Your task to perform on an android device: turn off notifications in google photos Image 0: 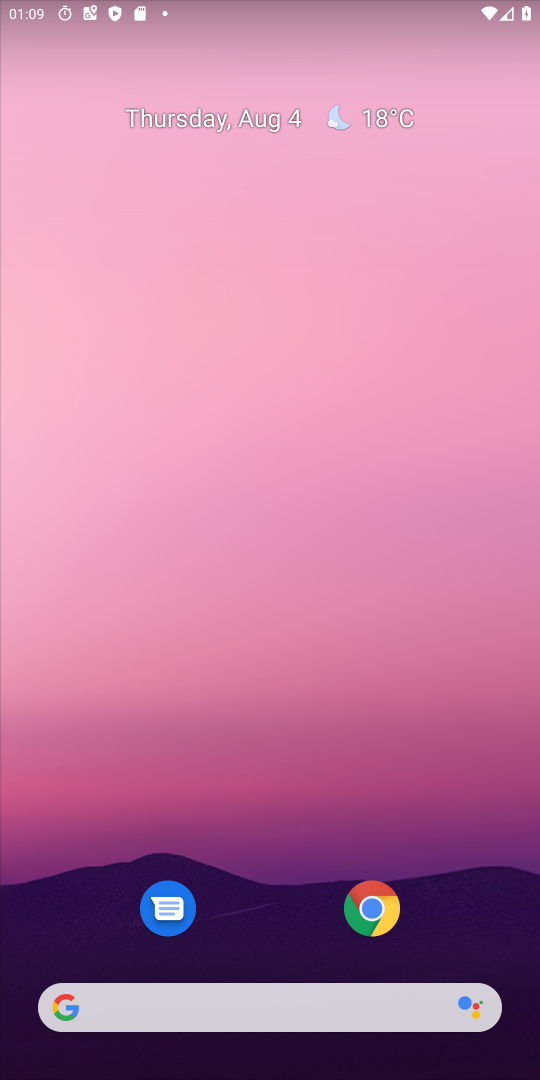
Step 0: press home button
Your task to perform on an android device: turn off notifications in google photos Image 1: 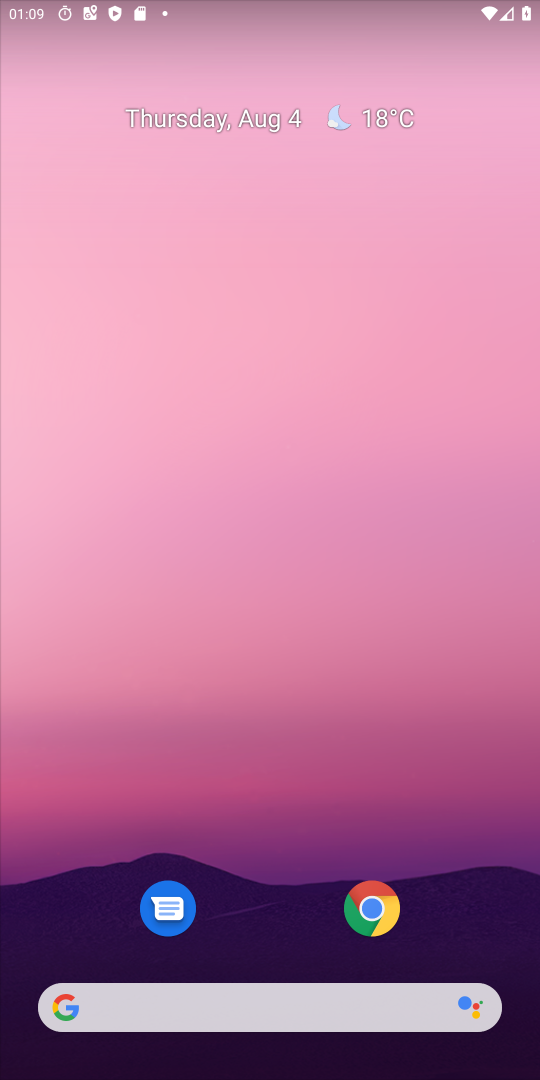
Step 1: drag from (282, 1024) to (309, 227)
Your task to perform on an android device: turn off notifications in google photos Image 2: 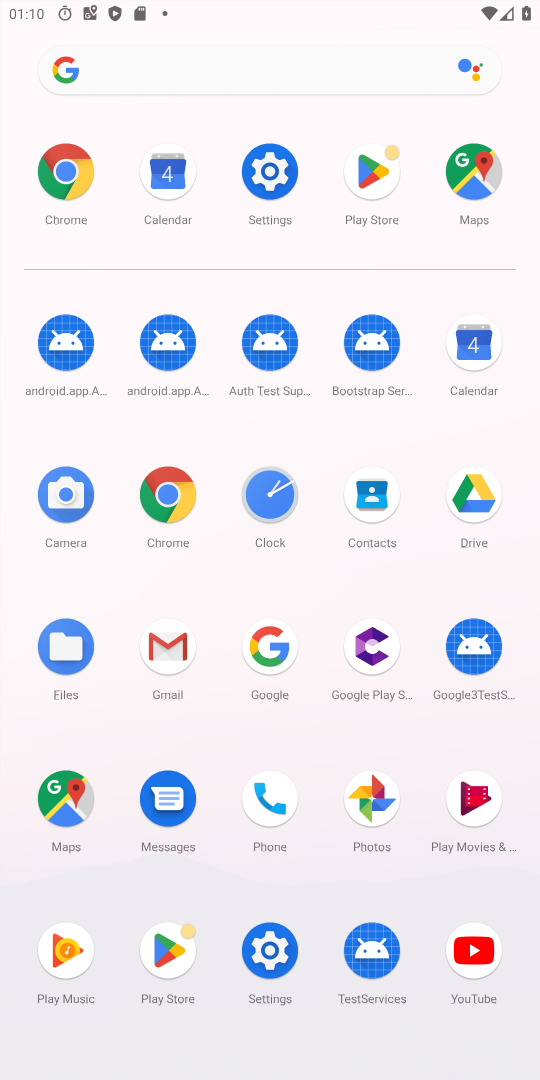
Step 2: click (352, 807)
Your task to perform on an android device: turn off notifications in google photos Image 3: 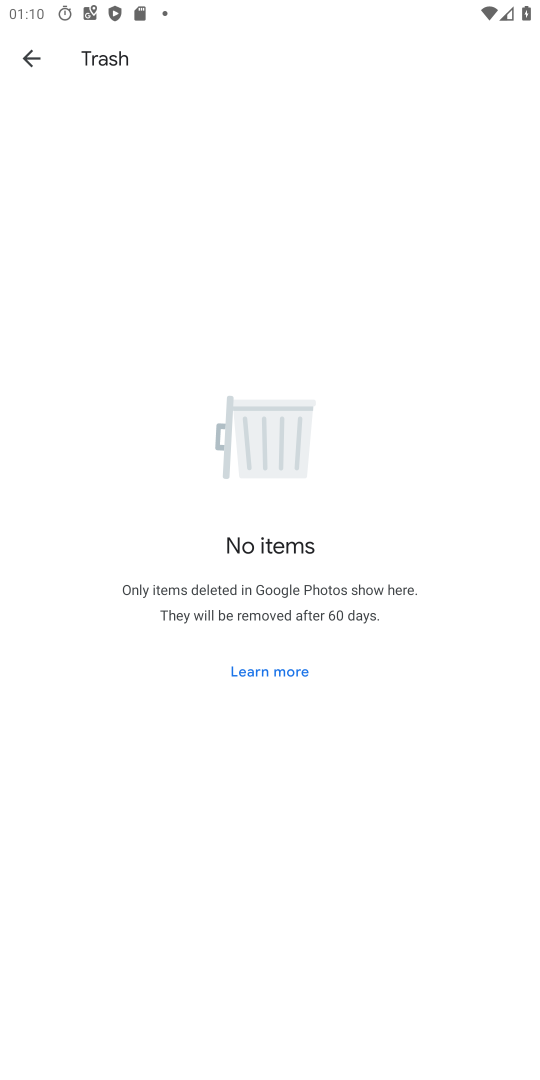
Step 3: click (29, 81)
Your task to perform on an android device: turn off notifications in google photos Image 4: 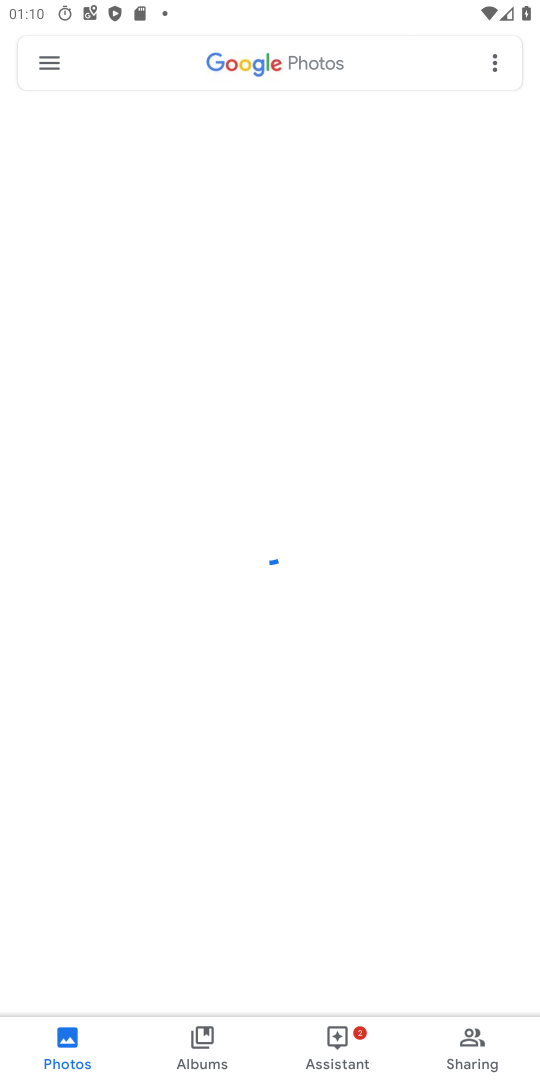
Step 4: click (40, 69)
Your task to perform on an android device: turn off notifications in google photos Image 5: 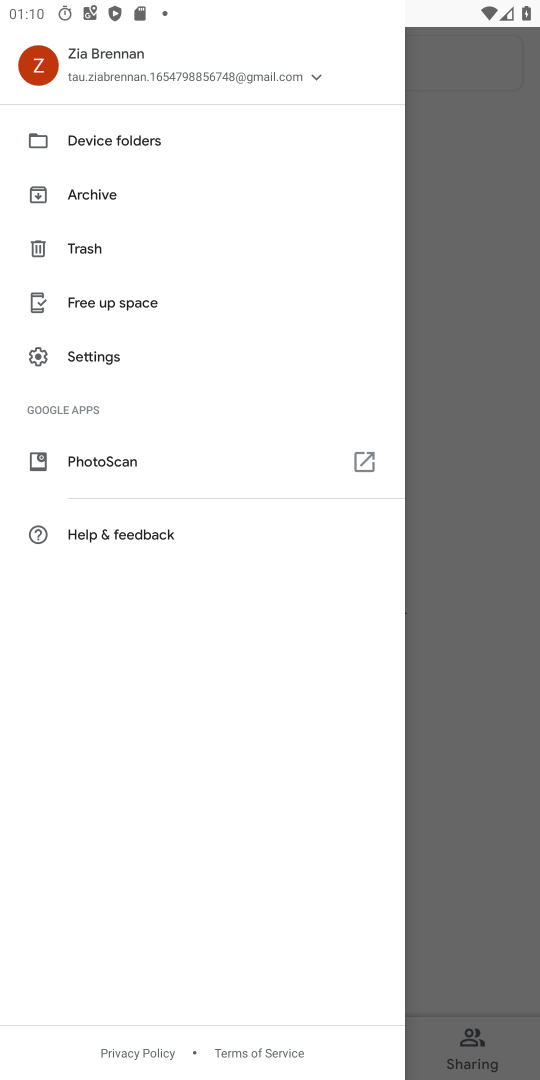
Step 5: click (112, 354)
Your task to perform on an android device: turn off notifications in google photos Image 6: 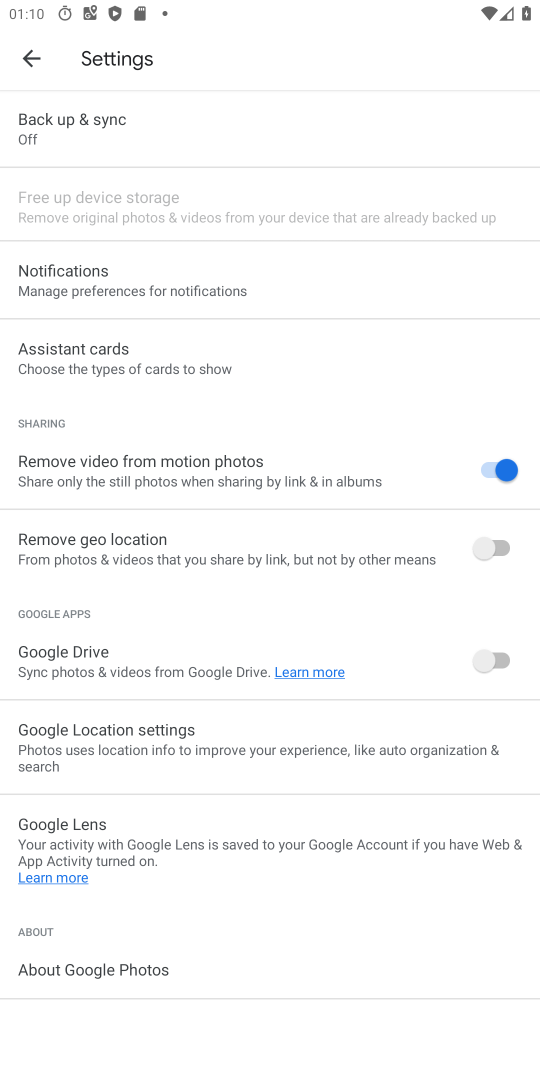
Step 6: click (150, 266)
Your task to perform on an android device: turn off notifications in google photos Image 7: 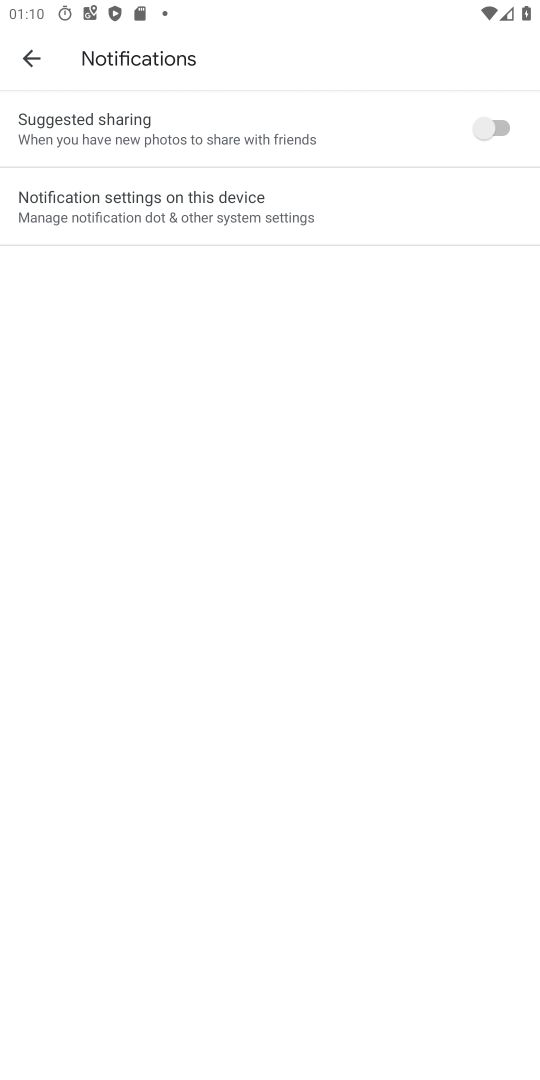
Step 7: click (323, 222)
Your task to perform on an android device: turn off notifications in google photos Image 8: 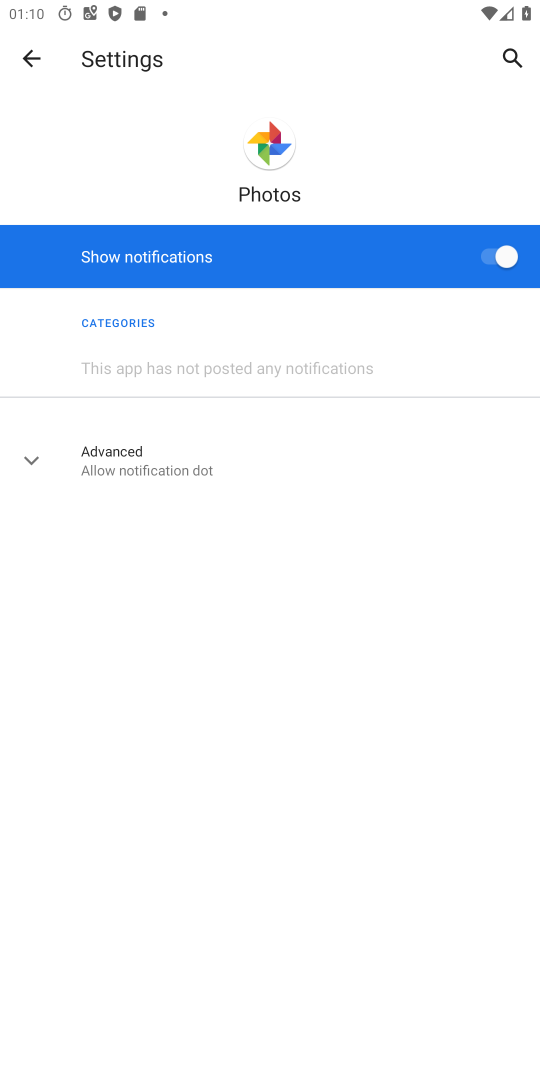
Step 8: click (493, 246)
Your task to perform on an android device: turn off notifications in google photos Image 9: 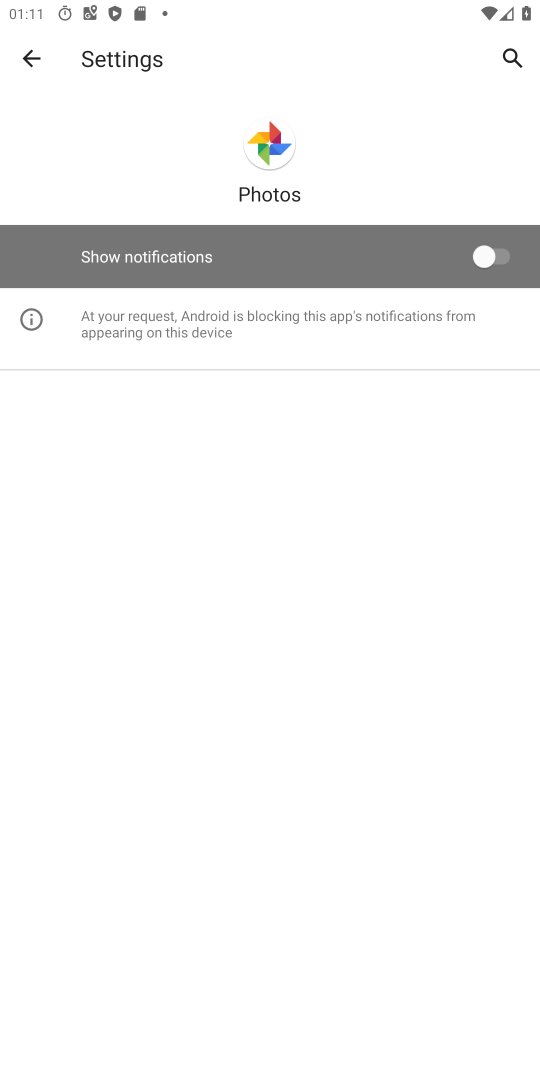
Step 9: task complete